Your task to perform on an android device: set the stopwatch Image 0: 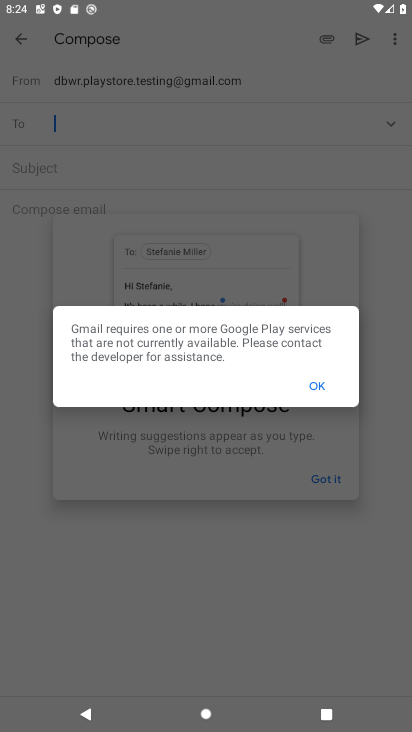
Step 0: press home button
Your task to perform on an android device: set the stopwatch Image 1: 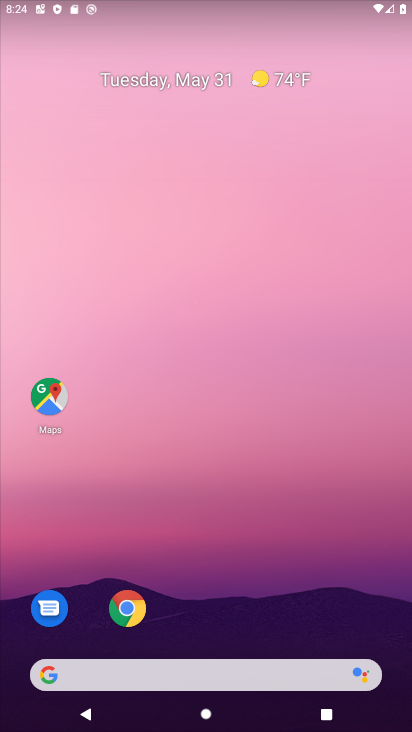
Step 1: drag from (221, 652) to (177, 75)
Your task to perform on an android device: set the stopwatch Image 2: 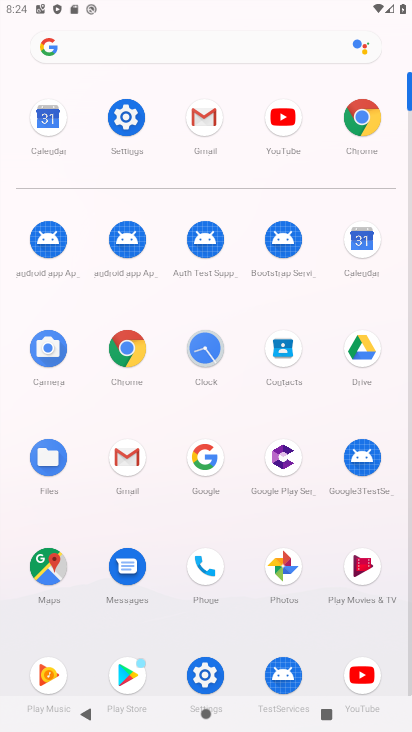
Step 2: click (198, 349)
Your task to perform on an android device: set the stopwatch Image 3: 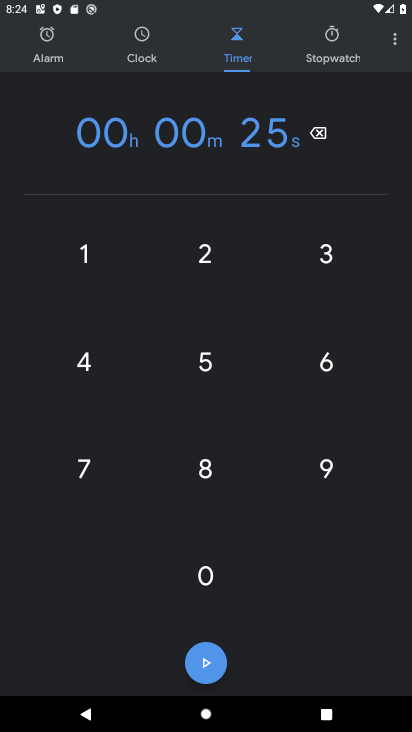
Step 3: click (321, 42)
Your task to perform on an android device: set the stopwatch Image 4: 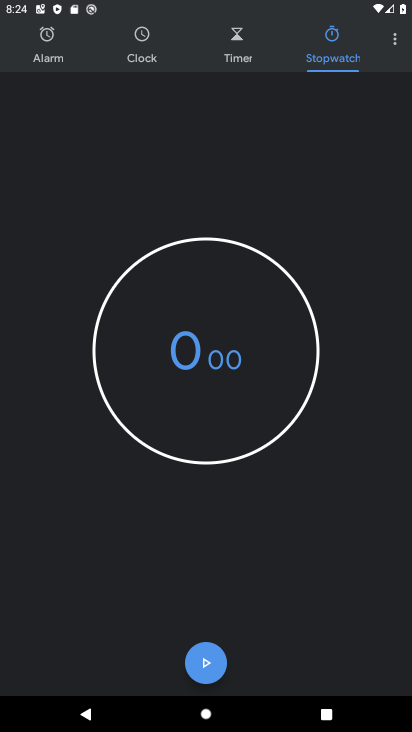
Step 4: task complete